Your task to perform on an android device: add a label to a message in the gmail app Image 0: 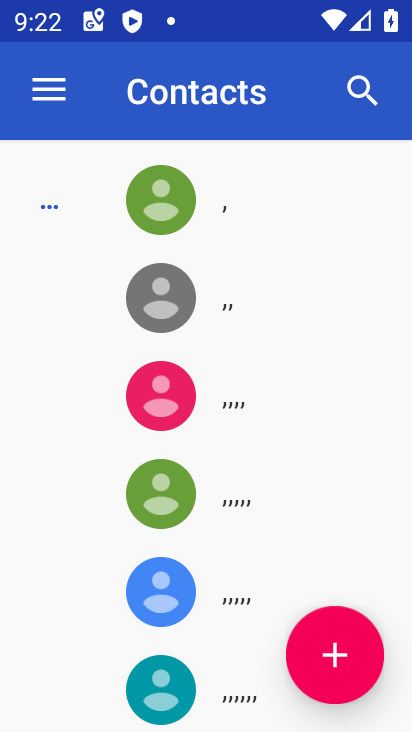
Step 0: press home button
Your task to perform on an android device: add a label to a message in the gmail app Image 1: 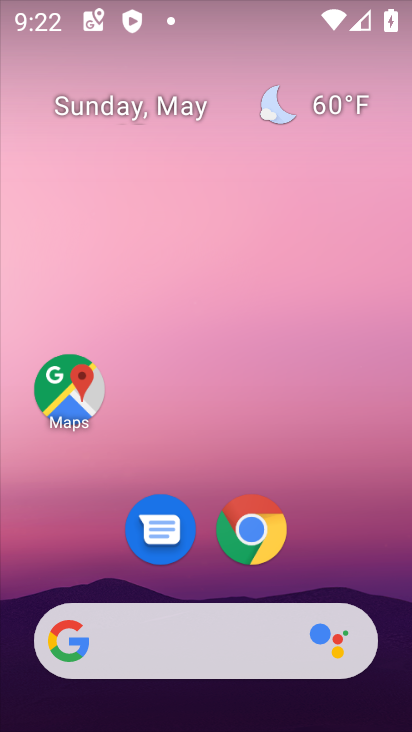
Step 1: drag from (389, 571) to (392, 131)
Your task to perform on an android device: add a label to a message in the gmail app Image 2: 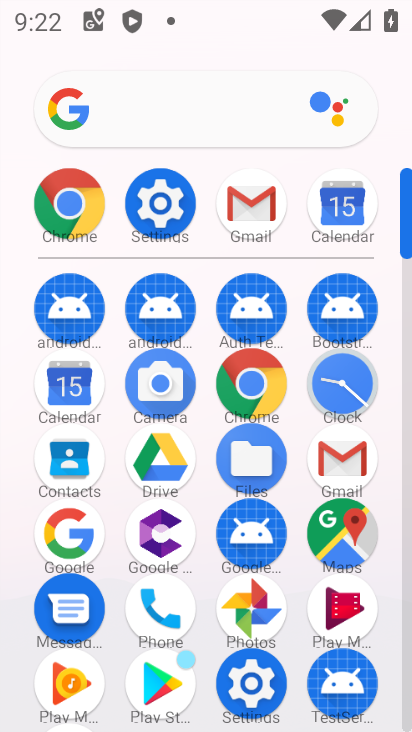
Step 2: click (337, 462)
Your task to perform on an android device: add a label to a message in the gmail app Image 3: 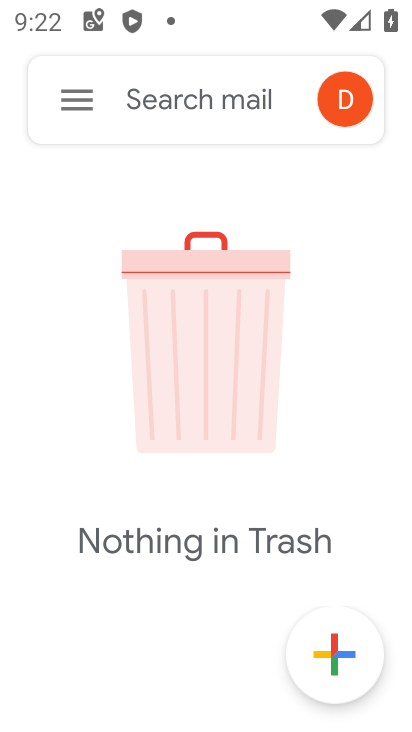
Step 3: click (78, 100)
Your task to perform on an android device: add a label to a message in the gmail app Image 4: 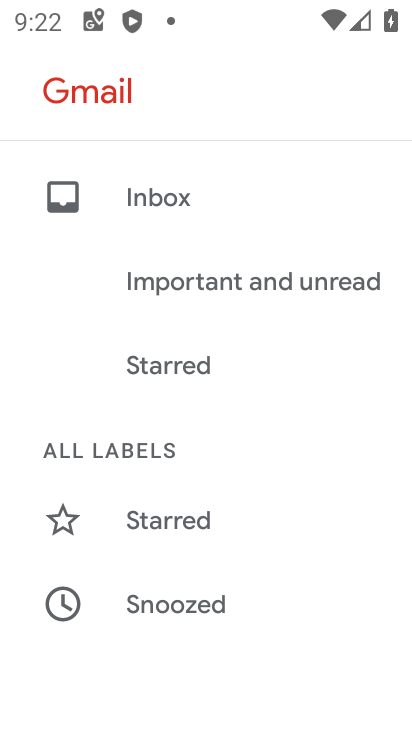
Step 4: drag from (340, 460) to (340, 361)
Your task to perform on an android device: add a label to a message in the gmail app Image 5: 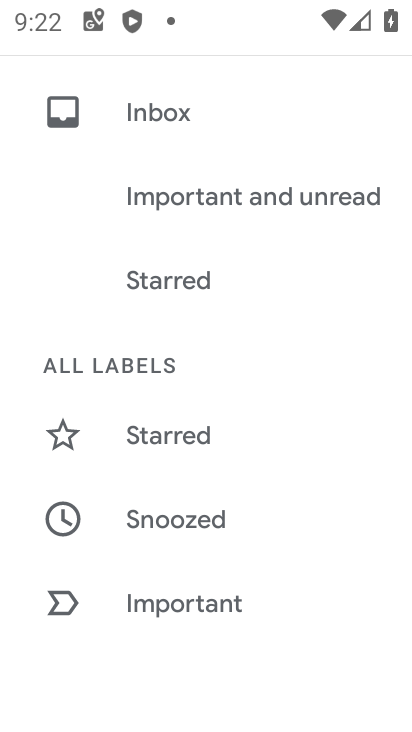
Step 5: drag from (343, 638) to (328, 431)
Your task to perform on an android device: add a label to a message in the gmail app Image 6: 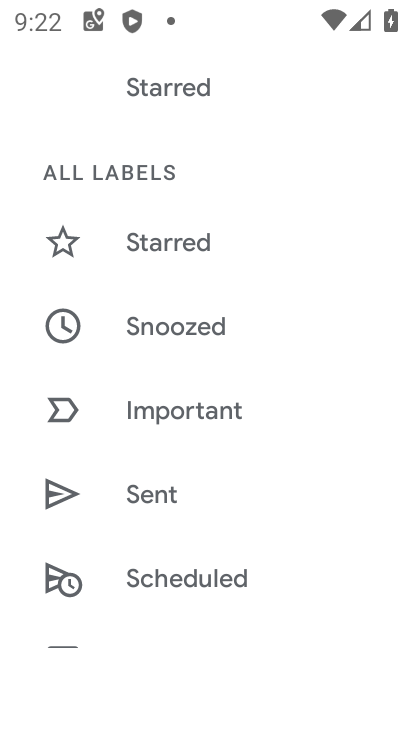
Step 6: drag from (343, 629) to (348, 456)
Your task to perform on an android device: add a label to a message in the gmail app Image 7: 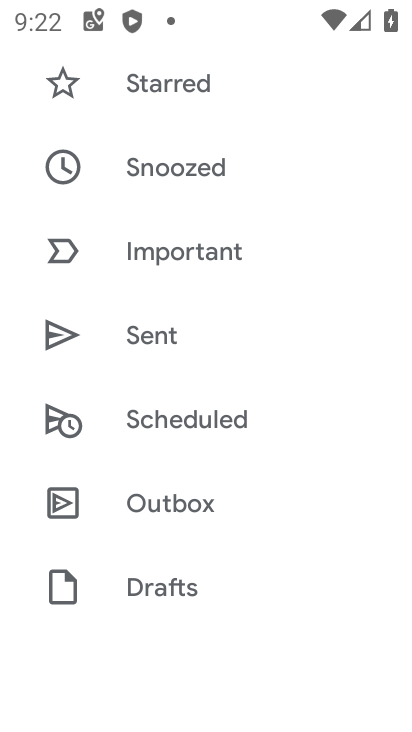
Step 7: drag from (346, 251) to (341, 480)
Your task to perform on an android device: add a label to a message in the gmail app Image 8: 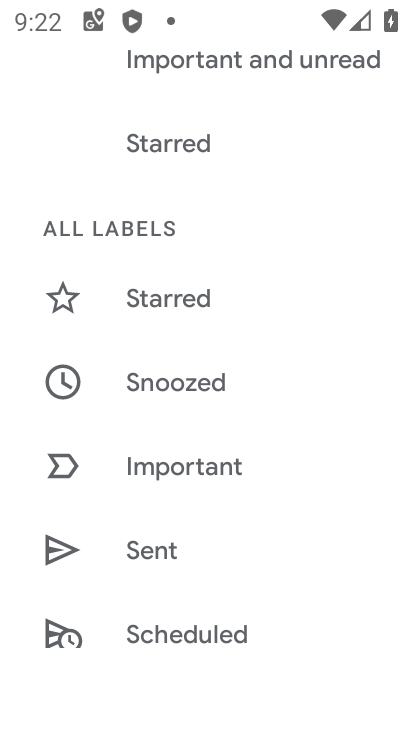
Step 8: drag from (339, 222) to (335, 487)
Your task to perform on an android device: add a label to a message in the gmail app Image 9: 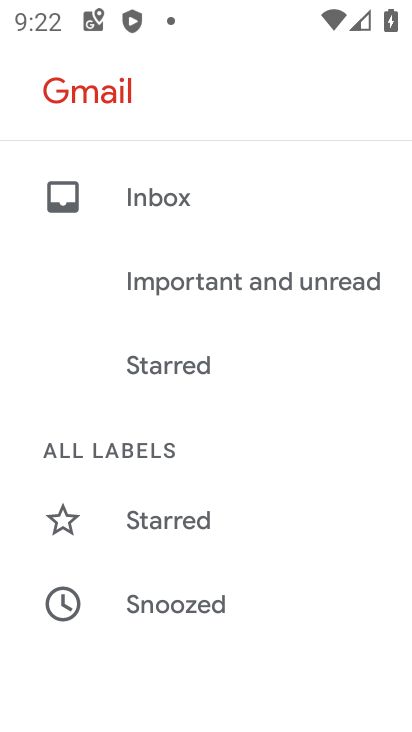
Step 9: drag from (322, 232) to (322, 491)
Your task to perform on an android device: add a label to a message in the gmail app Image 10: 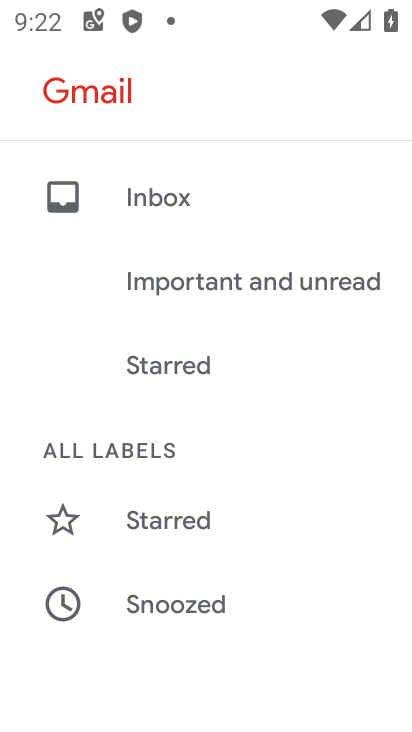
Step 10: click (166, 218)
Your task to perform on an android device: add a label to a message in the gmail app Image 11: 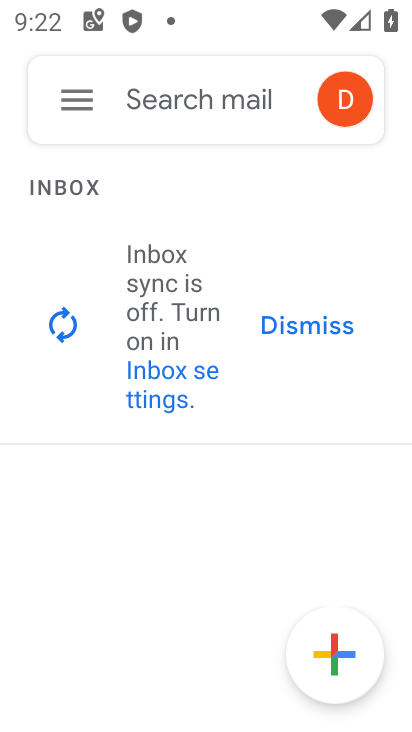
Step 11: task complete